Your task to perform on an android device: Open Youtube and go to the subscriptions tab Image 0: 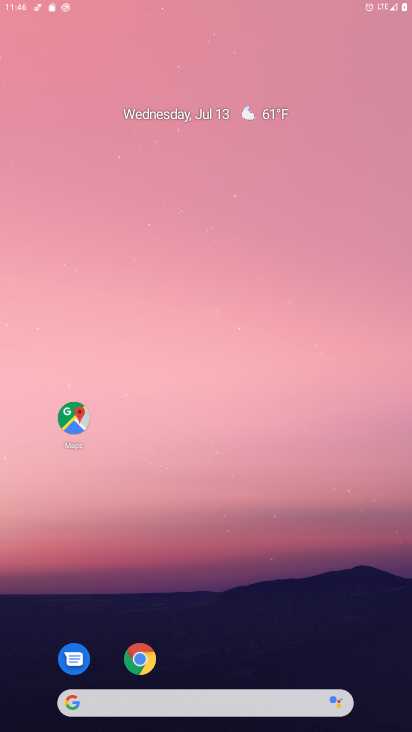
Step 0: press home button
Your task to perform on an android device: Open Youtube and go to the subscriptions tab Image 1: 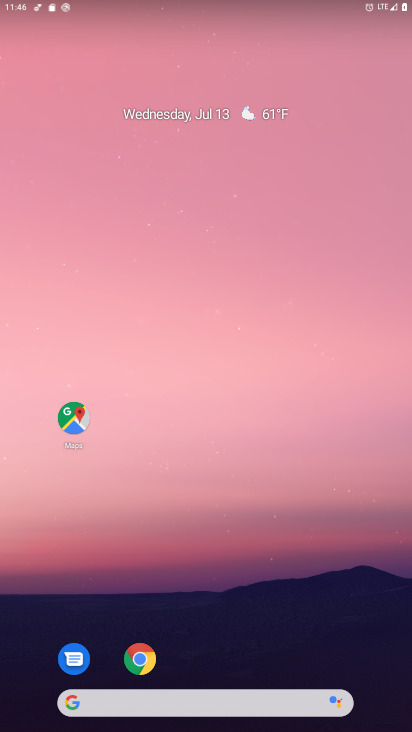
Step 1: drag from (217, 662) to (233, 1)
Your task to perform on an android device: Open Youtube and go to the subscriptions tab Image 2: 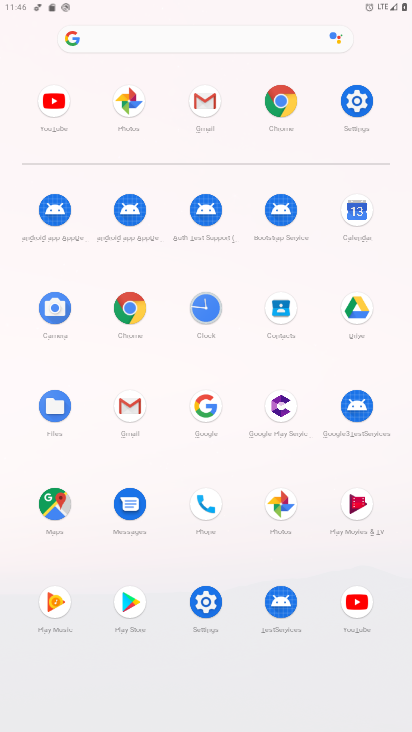
Step 2: click (356, 596)
Your task to perform on an android device: Open Youtube and go to the subscriptions tab Image 3: 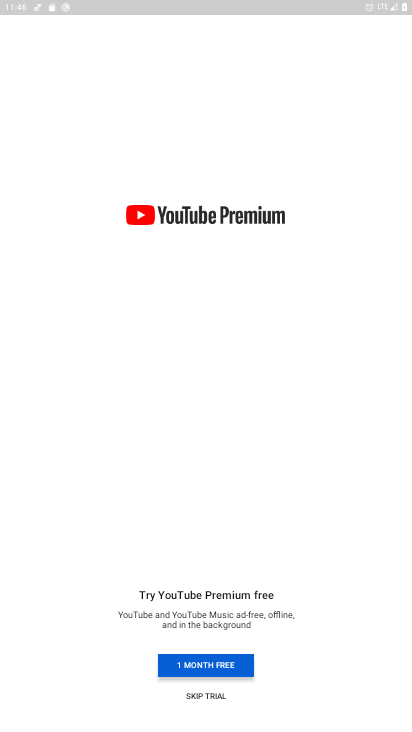
Step 3: click (212, 691)
Your task to perform on an android device: Open Youtube and go to the subscriptions tab Image 4: 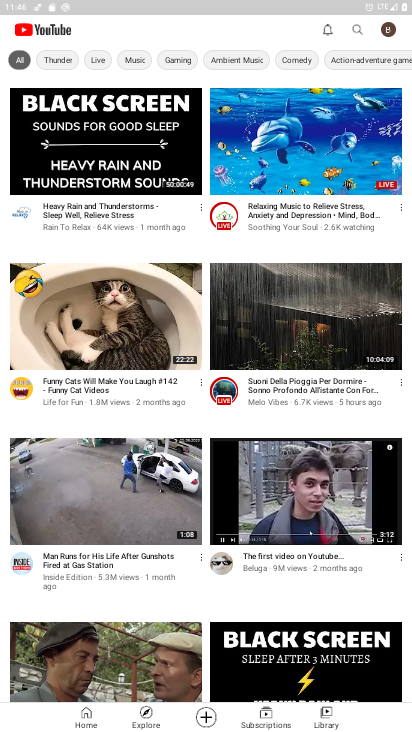
Step 4: click (260, 714)
Your task to perform on an android device: Open Youtube and go to the subscriptions tab Image 5: 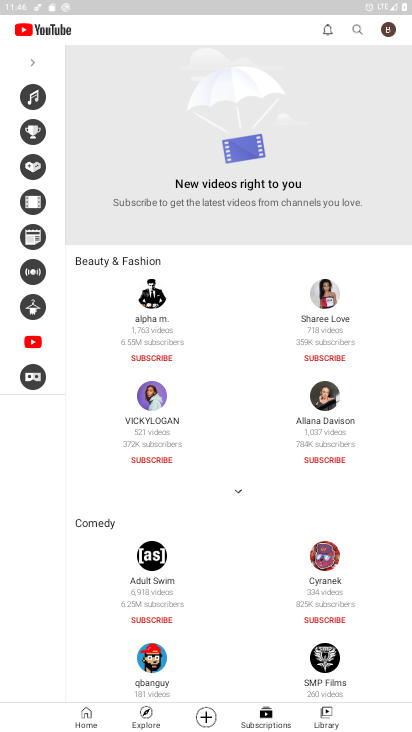
Step 5: task complete